Your task to perform on an android device: Show me recent news Image 0: 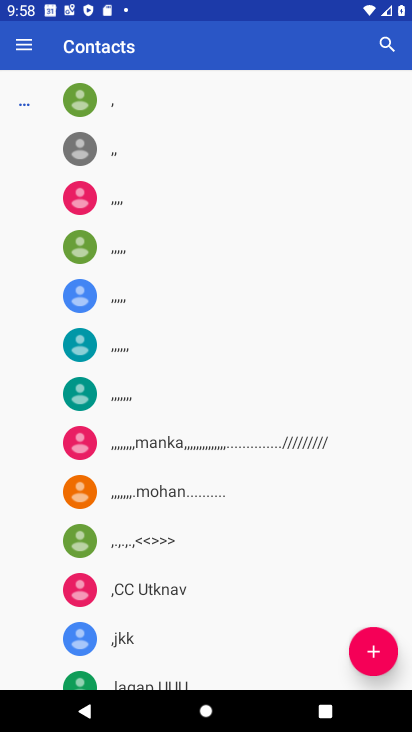
Step 0: press home button
Your task to perform on an android device: Show me recent news Image 1: 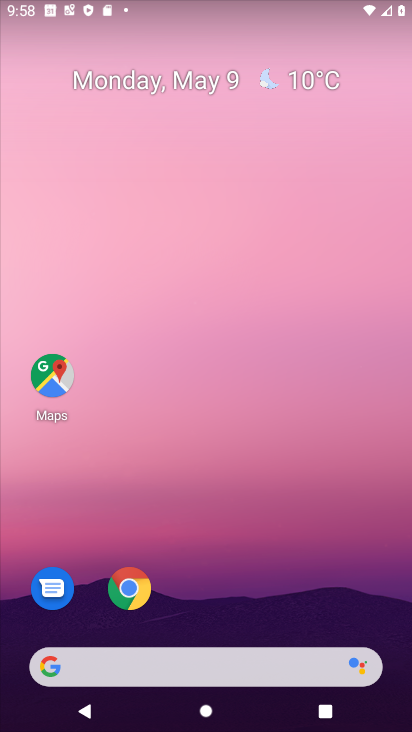
Step 1: click (53, 665)
Your task to perform on an android device: Show me recent news Image 2: 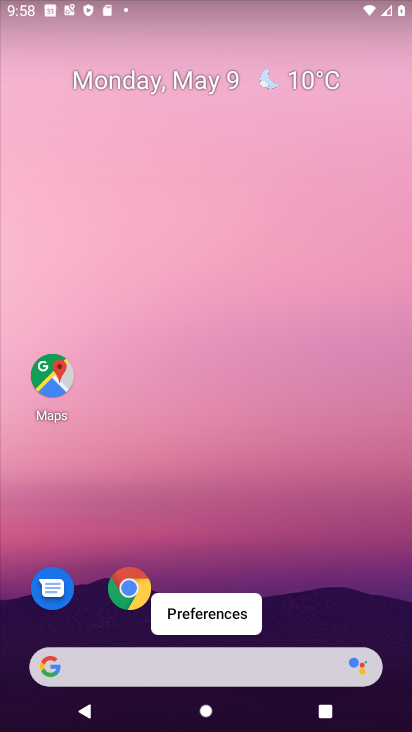
Step 2: click (51, 665)
Your task to perform on an android device: Show me recent news Image 3: 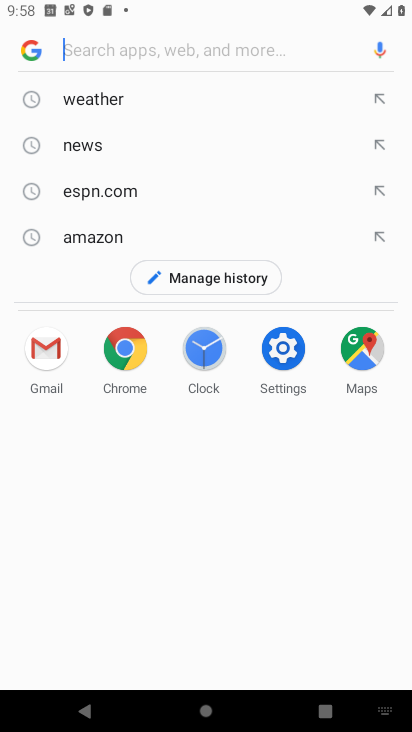
Step 3: click (89, 146)
Your task to perform on an android device: Show me recent news Image 4: 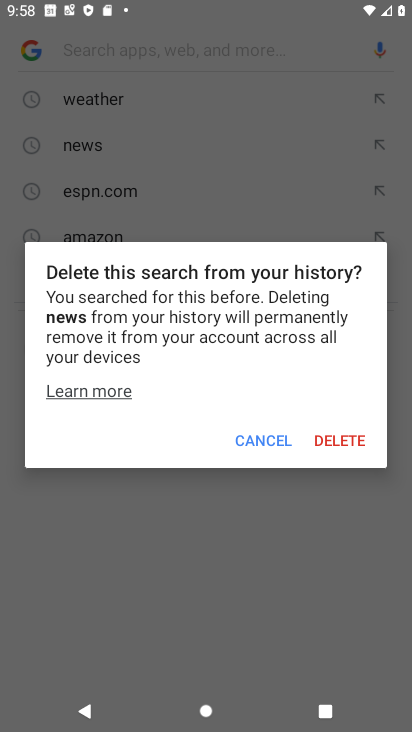
Step 4: click (109, 149)
Your task to perform on an android device: Show me recent news Image 5: 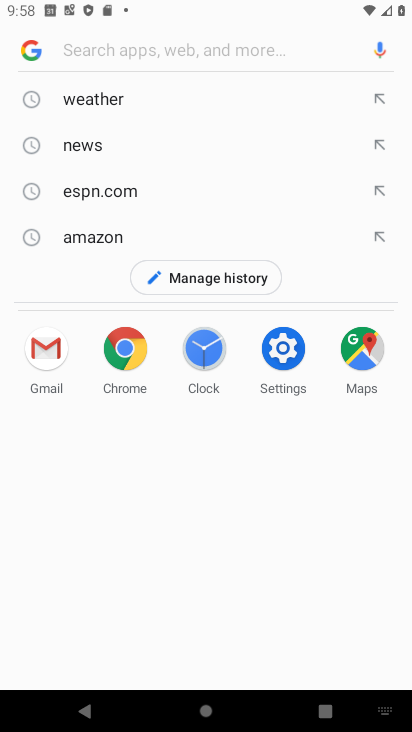
Step 5: click (98, 141)
Your task to perform on an android device: Show me recent news Image 6: 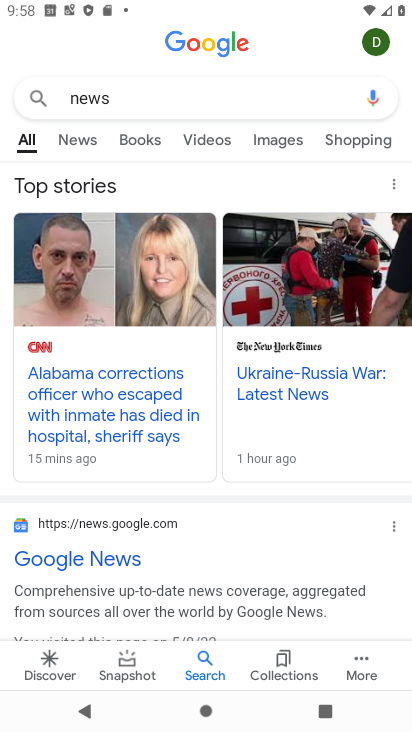
Step 6: click (79, 140)
Your task to perform on an android device: Show me recent news Image 7: 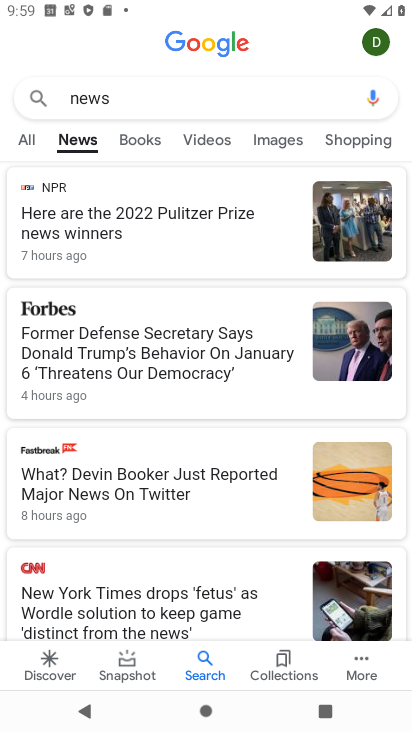
Step 7: task complete